Your task to perform on an android device: Search for seafood restaurants on Google Maps Image 0: 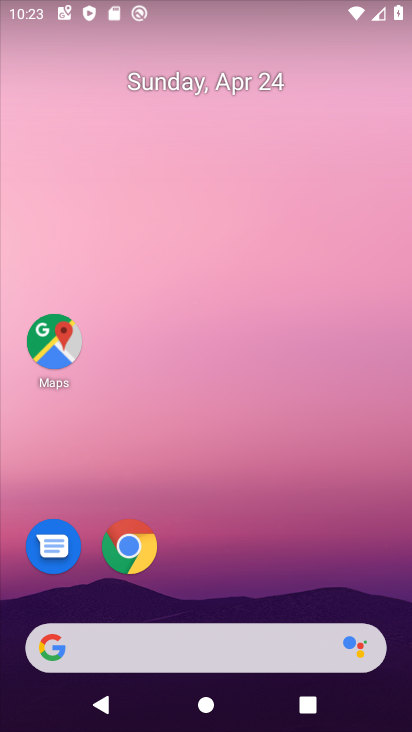
Step 0: click (44, 358)
Your task to perform on an android device: Search for seafood restaurants on Google Maps Image 1: 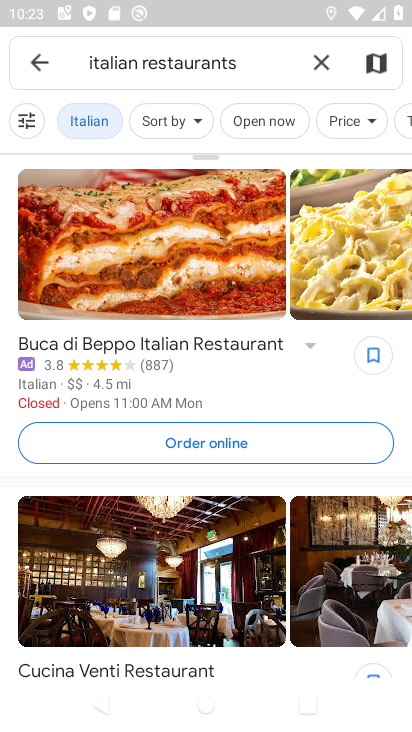
Step 1: click (312, 63)
Your task to perform on an android device: Search for seafood restaurants on Google Maps Image 2: 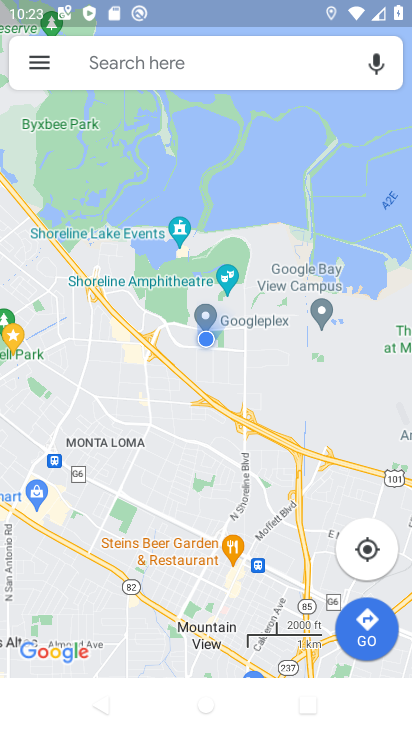
Step 2: click (208, 66)
Your task to perform on an android device: Search for seafood restaurants on Google Maps Image 3: 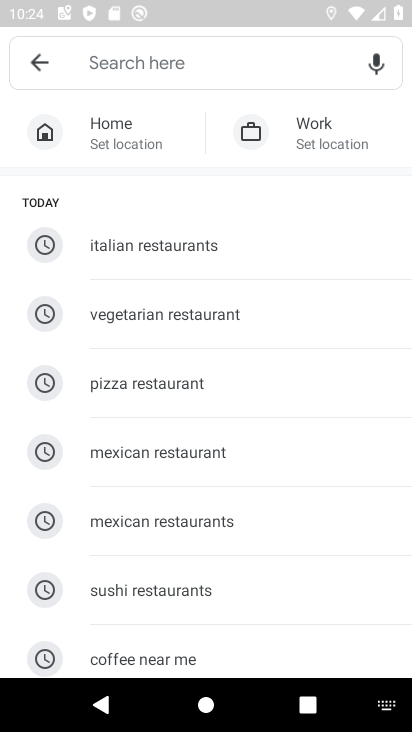
Step 3: type "seafood restaurant "
Your task to perform on an android device: Search for seafood restaurants on Google Maps Image 4: 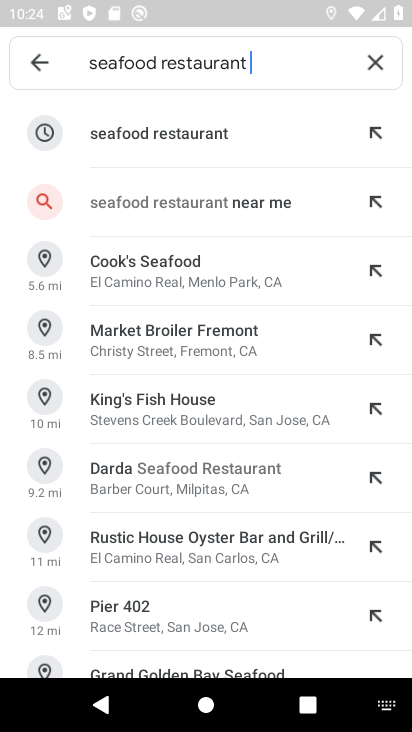
Step 4: click (195, 138)
Your task to perform on an android device: Search for seafood restaurants on Google Maps Image 5: 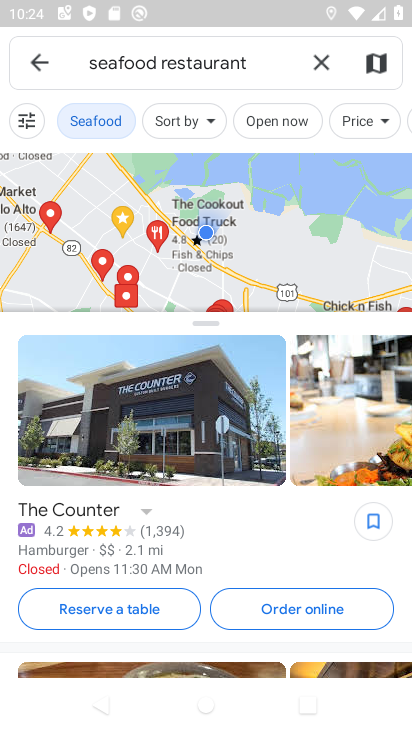
Step 5: task complete